Your task to perform on an android device: Add "logitech g910" to the cart on bestbuy, then select checkout. Image 0: 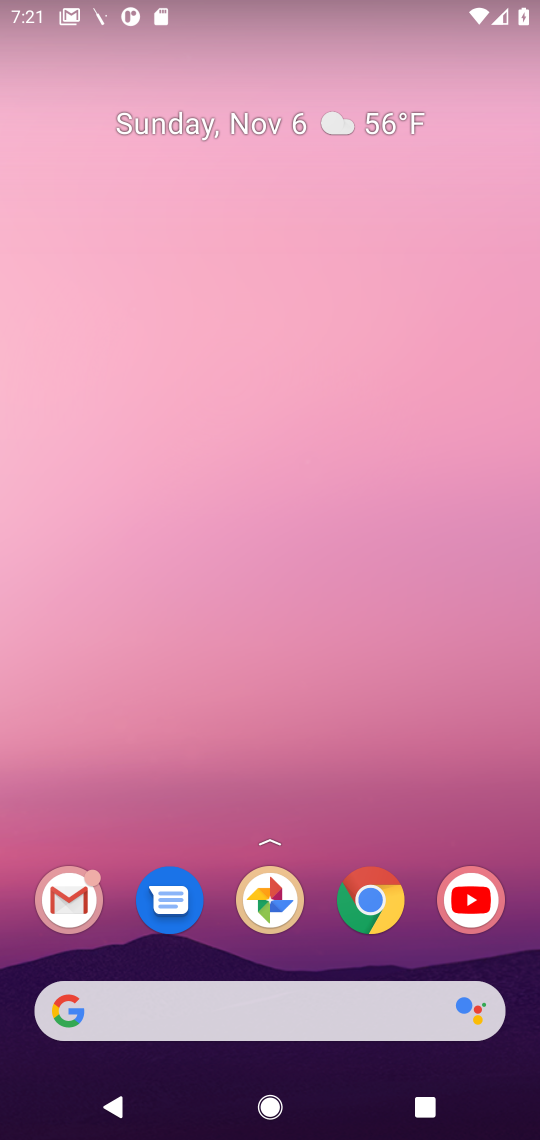
Step 0: drag from (312, 720) to (276, 131)
Your task to perform on an android device: Add "logitech g910" to the cart on bestbuy, then select checkout. Image 1: 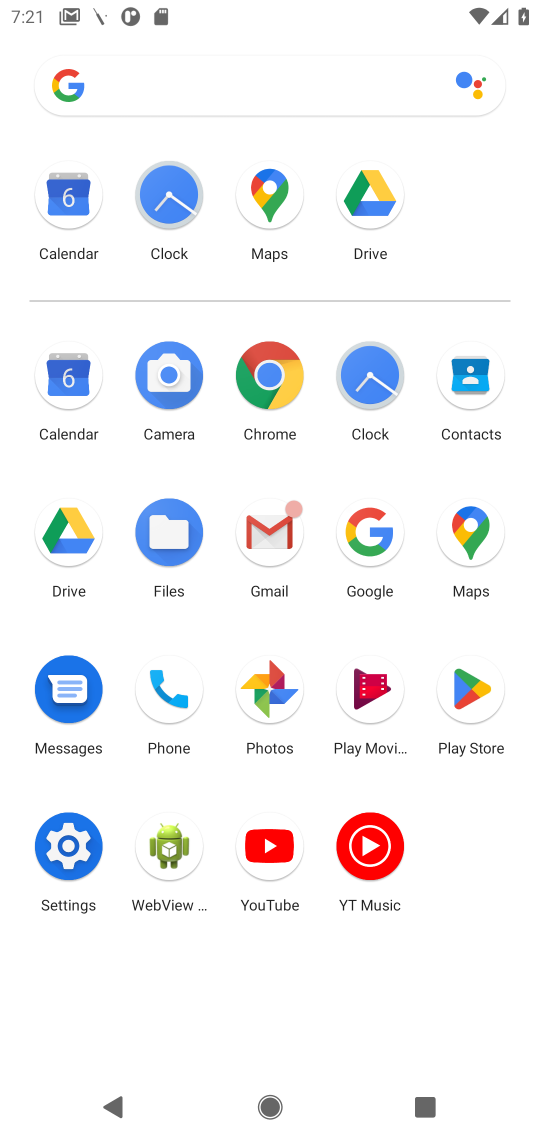
Step 1: click (265, 370)
Your task to perform on an android device: Add "logitech g910" to the cart on bestbuy, then select checkout. Image 2: 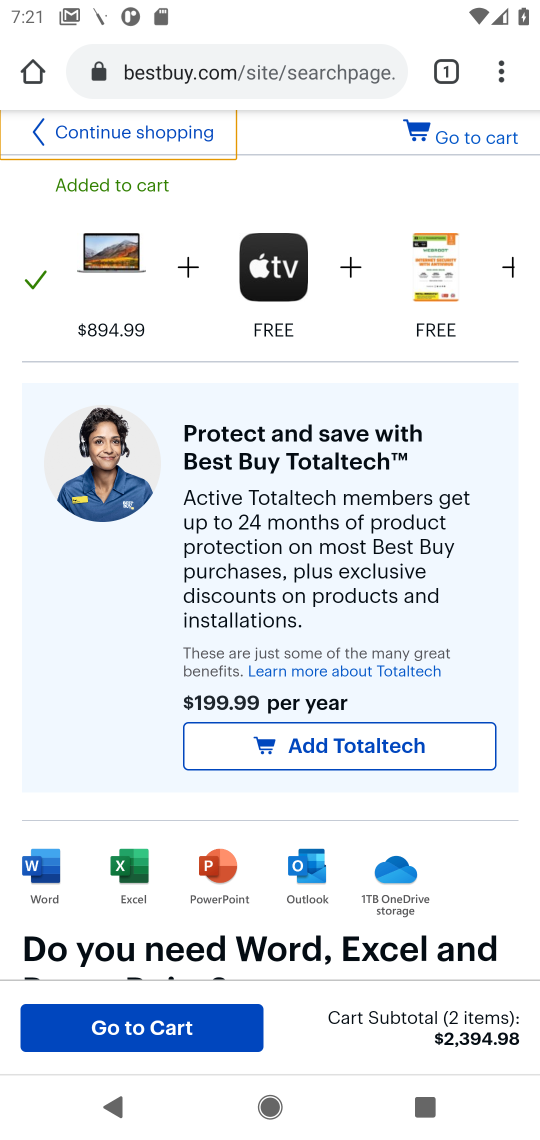
Step 2: click (284, 69)
Your task to perform on an android device: Add "logitech g910" to the cart on bestbuy, then select checkout. Image 3: 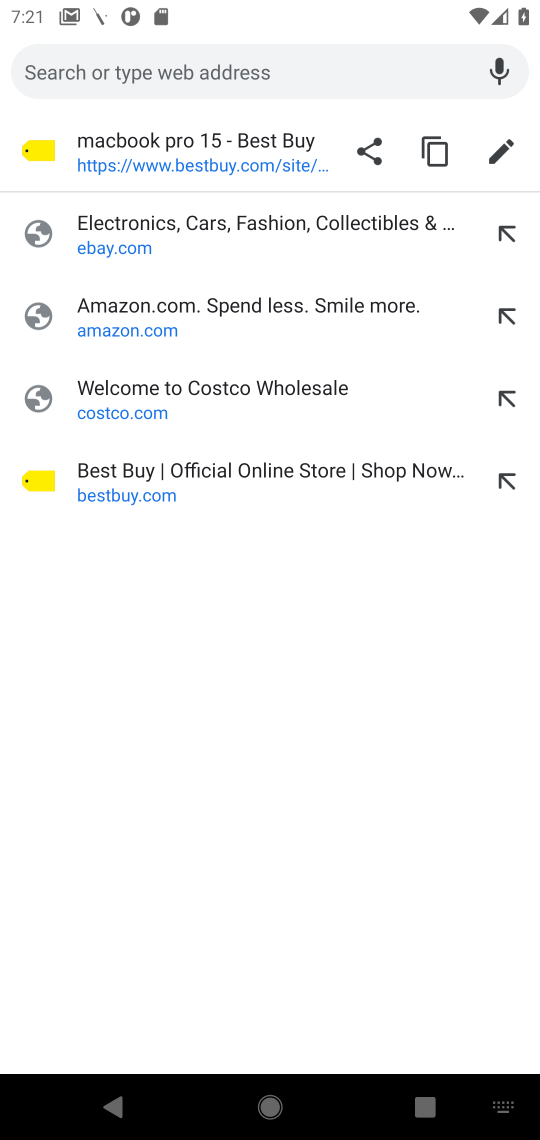
Step 3: type "bestbuy.com"
Your task to perform on an android device: Add "logitech g910" to the cart on bestbuy, then select checkout. Image 4: 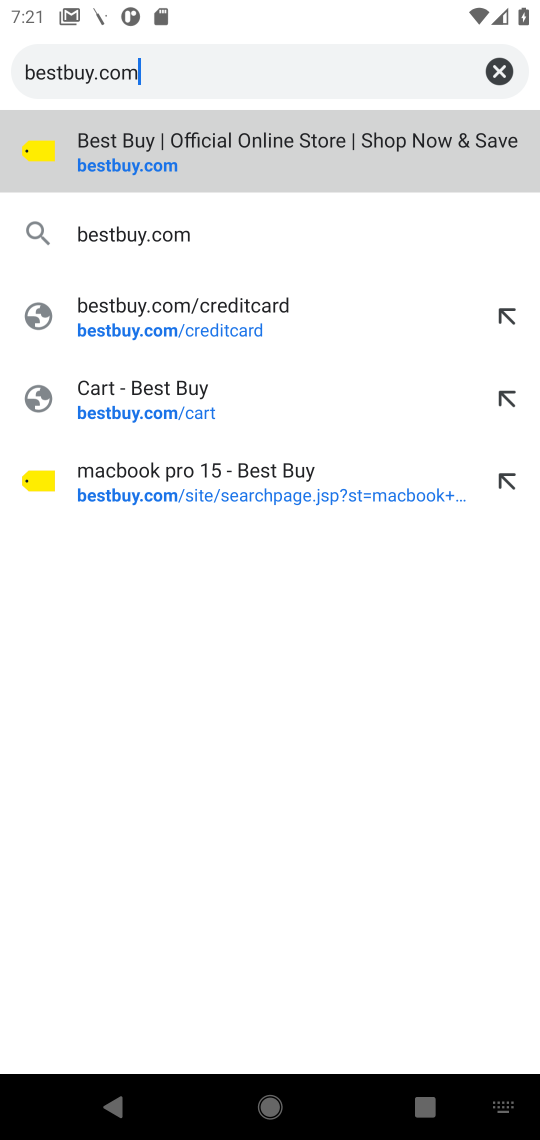
Step 4: press enter
Your task to perform on an android device: Add "logitech g910" to the cart on bestbuy, then select checkout. Image 5: 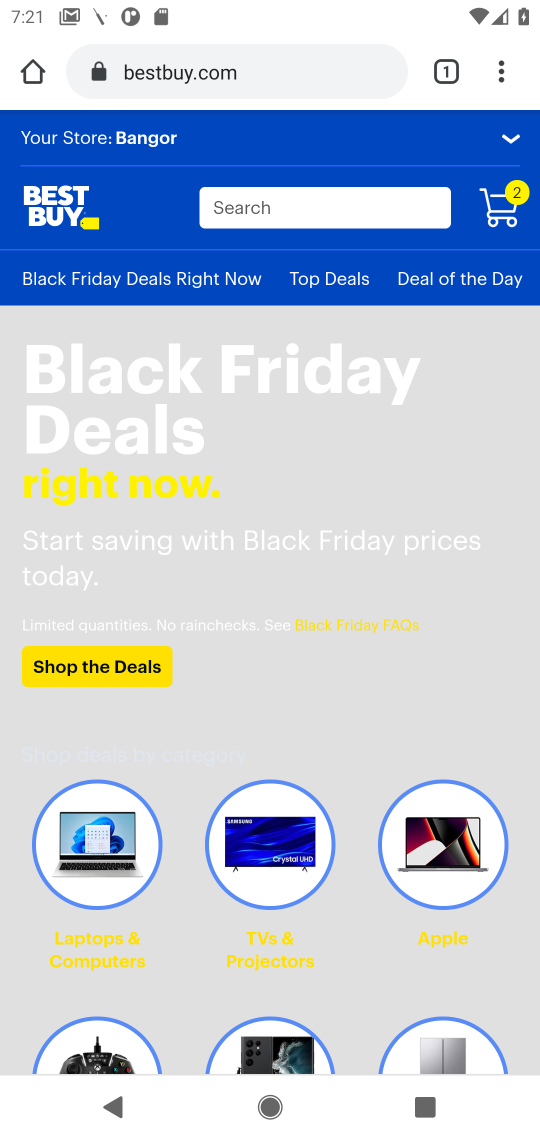
Step 5: click (272, 214)
Your task to perform on an android device: Add "logitech g910" to the cart on bestbuy, then select checkout. Image 6: 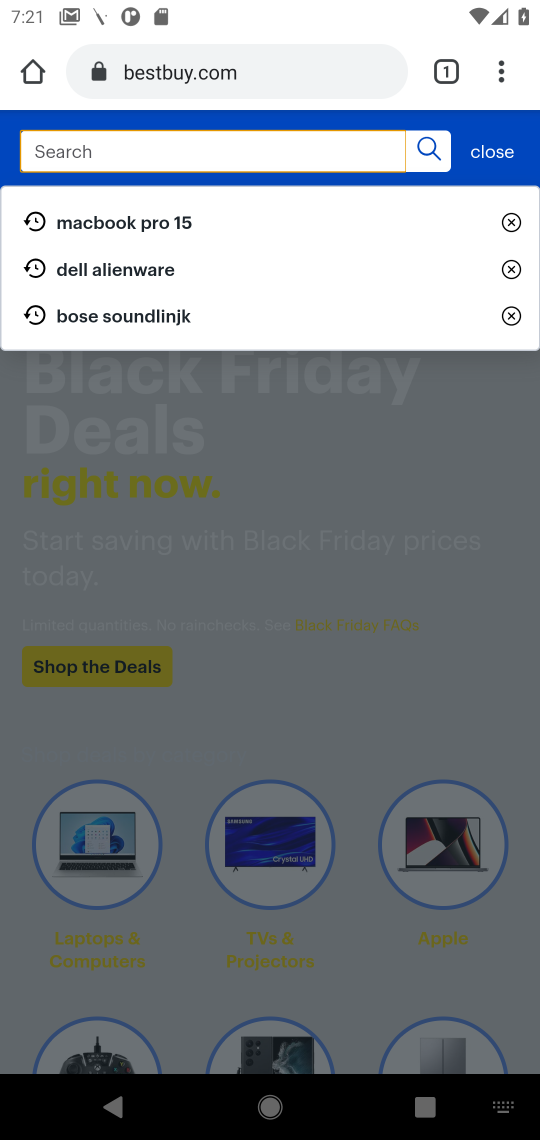
Step 6: type "logitech g910"
Your task to perform on an android device: Add "logitech g910" to the cart on bestbuy, then select checkout. Image 7: 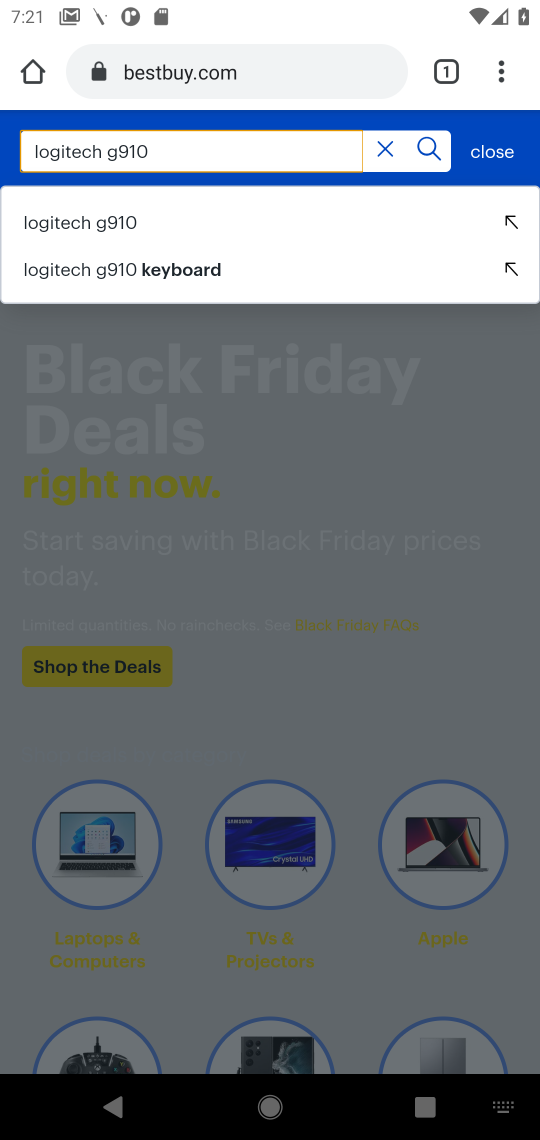
Step 7: press enter
Your task to perform on an android device: Add "logitech g910" to the cart on bestbuy, then select checkout. Image 8: 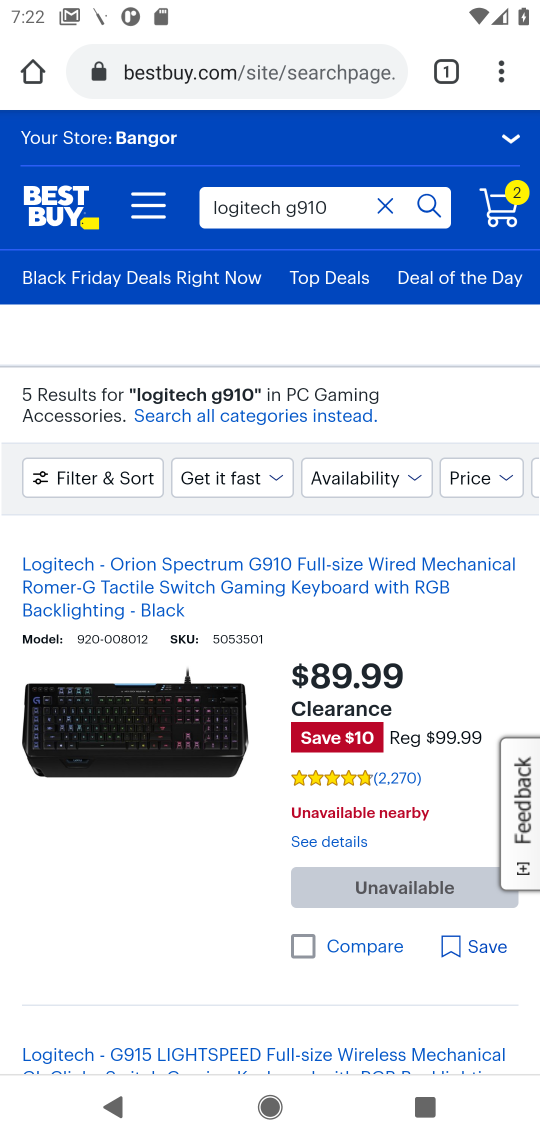
Step 8: drag from (282, 818) to (303, 230)
Your task to perform on an android device: Add "logitech g910" to the cart on bestbuy, then select checkout. Image 9: 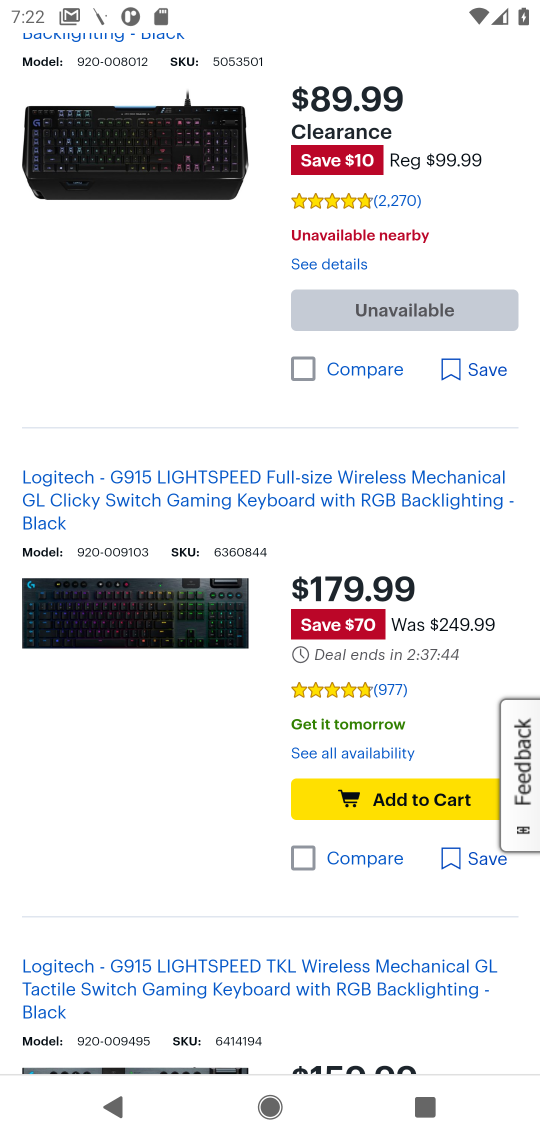
Step 9: drag from (280, 922) to (333, 110)
Your task to perform on an android device: Add "logitech g910" to the cart on bestbuy, then select checkout. Image 10: 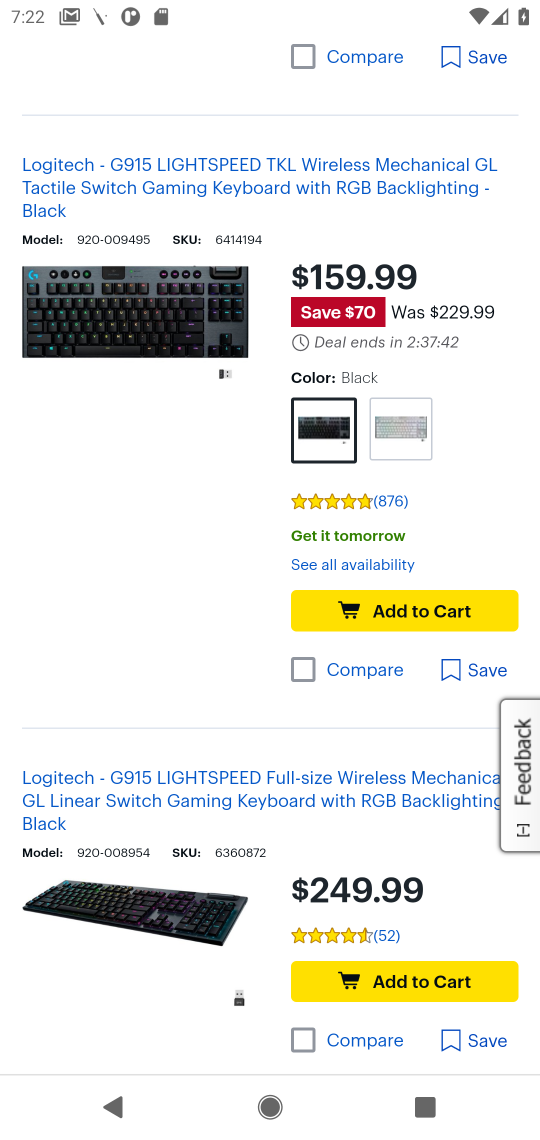
Step 10: drag from (293, 289) to (259, 1029)
Your task to perform on an android device: Add "logitech g910" to the cart on bestbuy, then select checkout. Image 11: 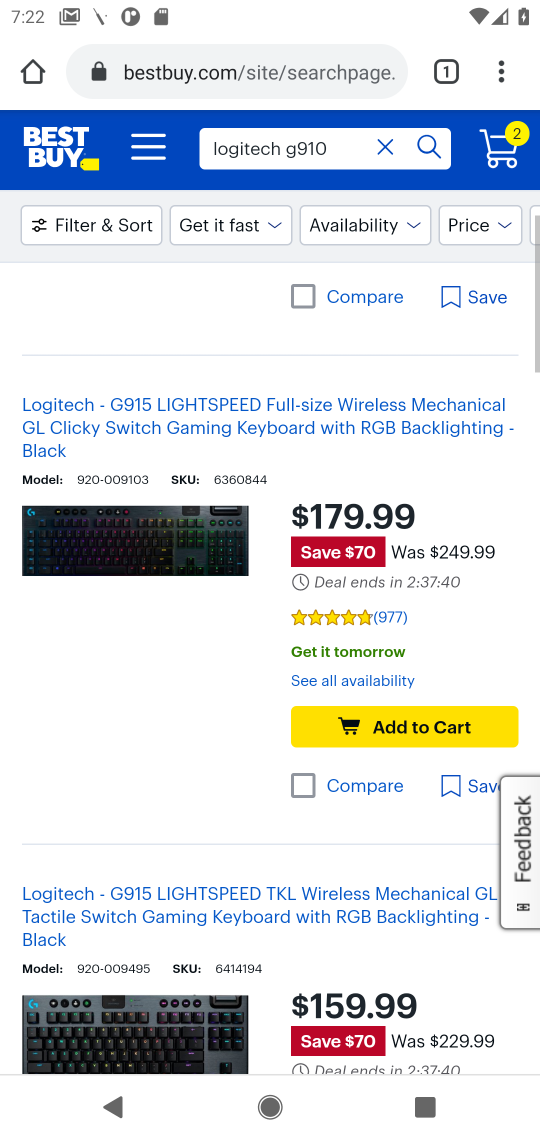
Step 11: drag from (239, 352) to (284, 872)
Your task to perform on an android device: Add "logitech g910" to the cart on bestbuy, then select checkout. Image 12: 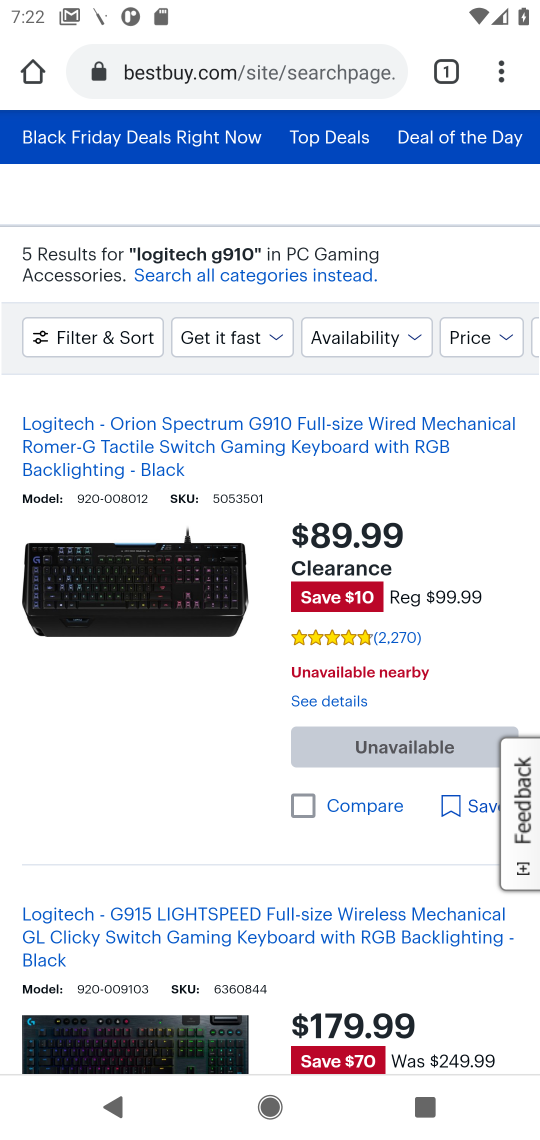
Step 12: click (244, 444)
Your task to perform on an android device: Add "logitech g910" to the cart on bestbuy, then select checkout. Image 13: 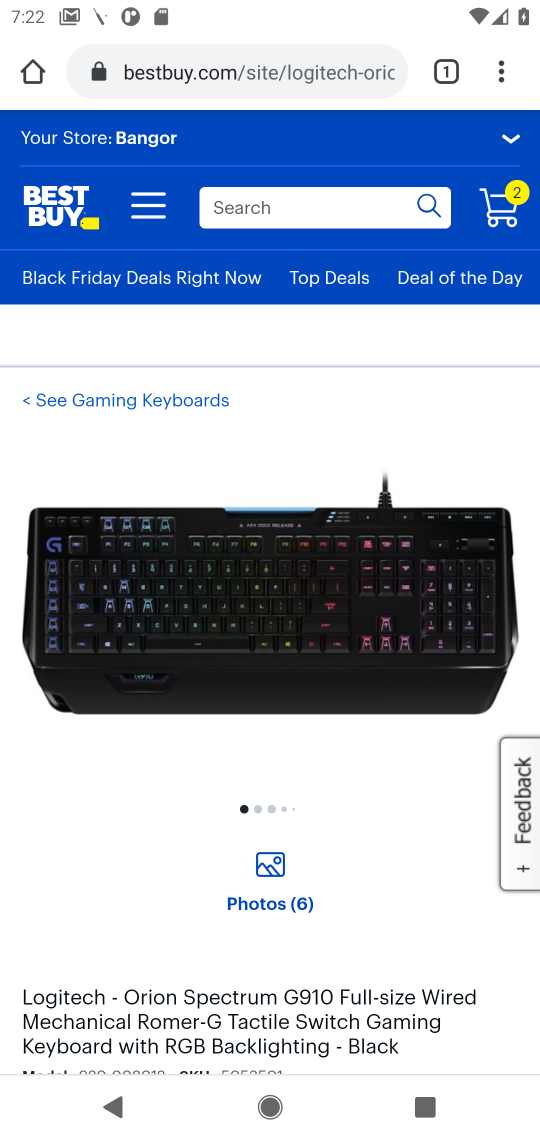
Step 13: task complete